Your task to perform on an android device: Search for Italian restaurants on Maps Image 0: 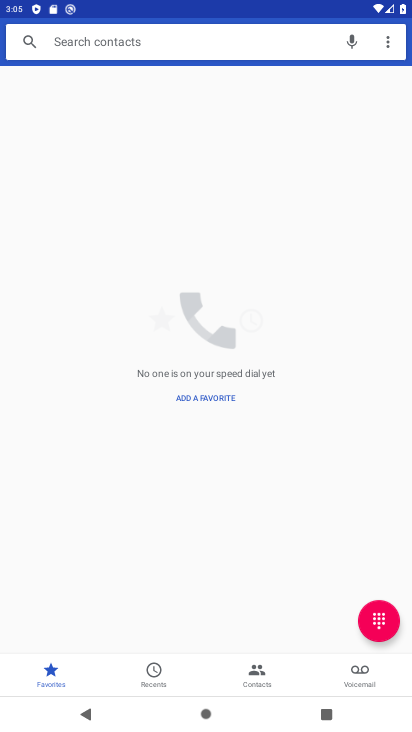
Step 0: press home button
Your task to perform on an android device: Search for Italian restaurants on Maps Image 1: 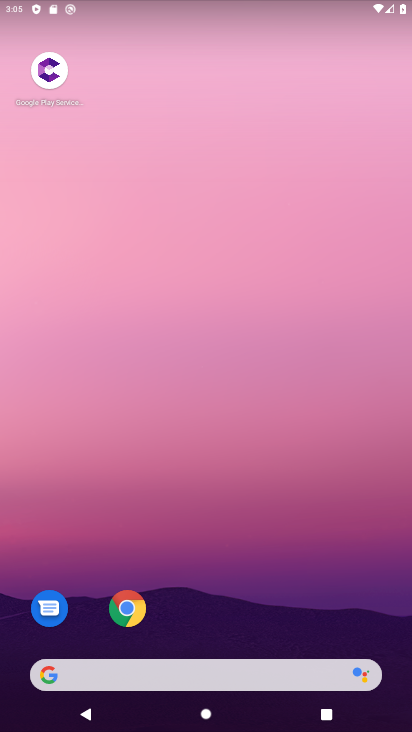
Step 1: click (43, 393)
Your task to perform on an android device: Search for Italian restaurants on Maps Image 2: 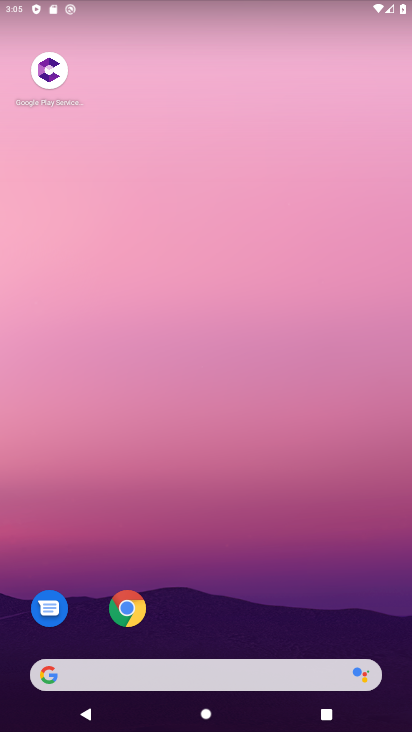
Step 2: drag from (159, 637) to (276, 145)
Your task to perform on an android device: Search for Italian restaurants on Maps Image 3: 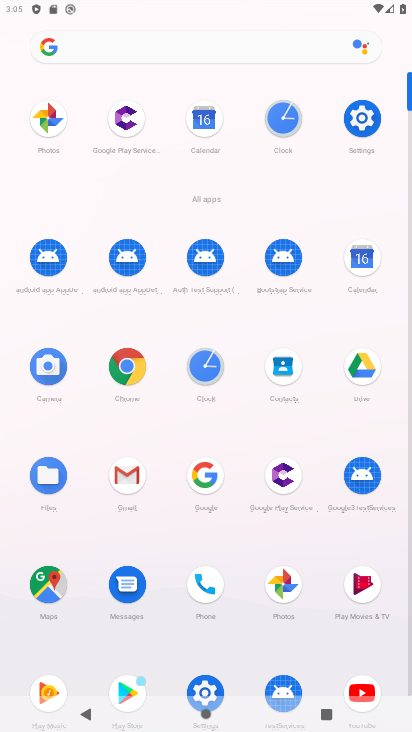
Step 3: click (54, 574)
Your task to perform on an android device: Search for Italian restaurants on Maps Image 4: 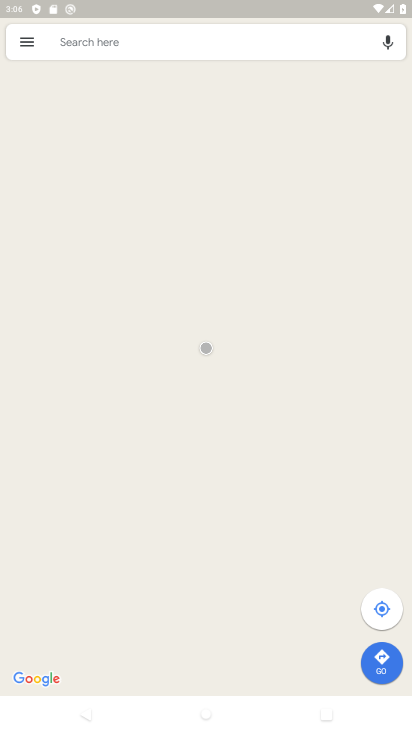
Step 4: click (102, 35)
Your task to perform on an android device: Search for Italian restaurants on Maps Image 5: 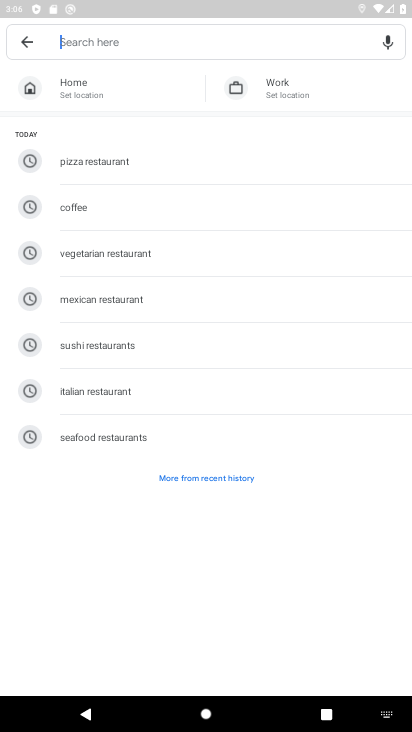
Step 5: type "Italian restaurants "
Your task to perform on an android device: Search for Italian restaurants on Maps Image 6: 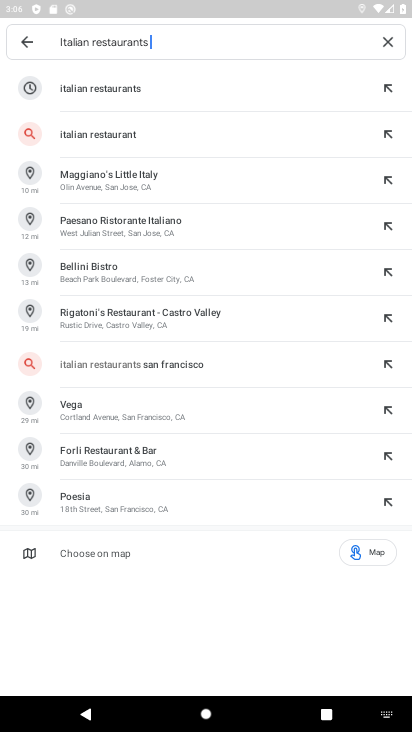
Step 6: click (124, 102)
Your task to perform on an android device: Search for Italian restaurants on Maps Image 7: 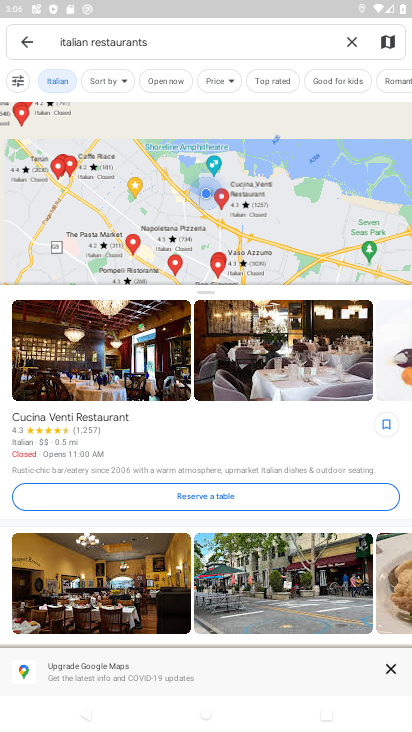
Step 7: task complete